Your task to perform on an android device: Open display settings Image 0: 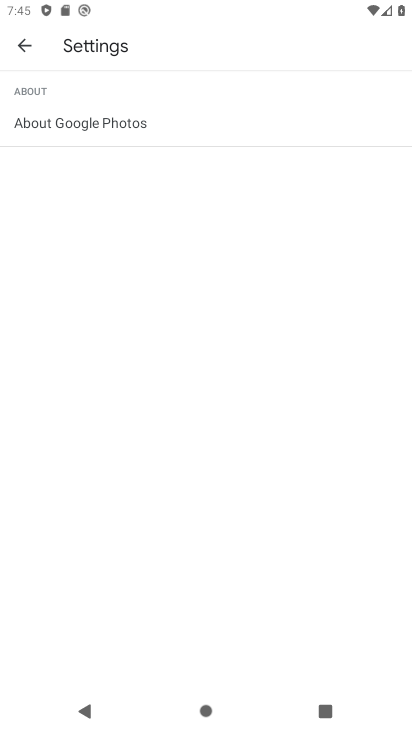
Step 0: press home button
Your task to perform on an android device: Open display settings Image 1: 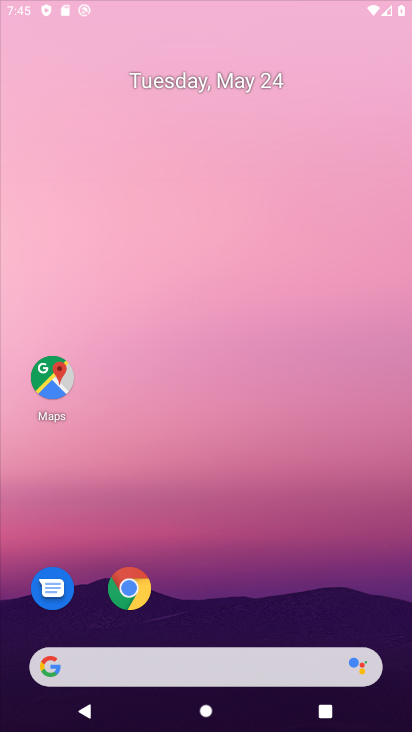
Step 1: drag from (153, 582) to (404, 60)
Your task to perform on an android device: Open display settings Image 2: 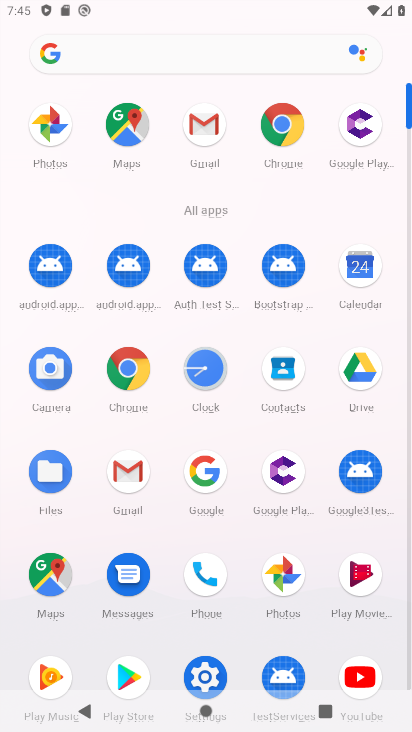
Step 2: click (214, 668)
Your task to perform on an android device: Open display settings Image 3: 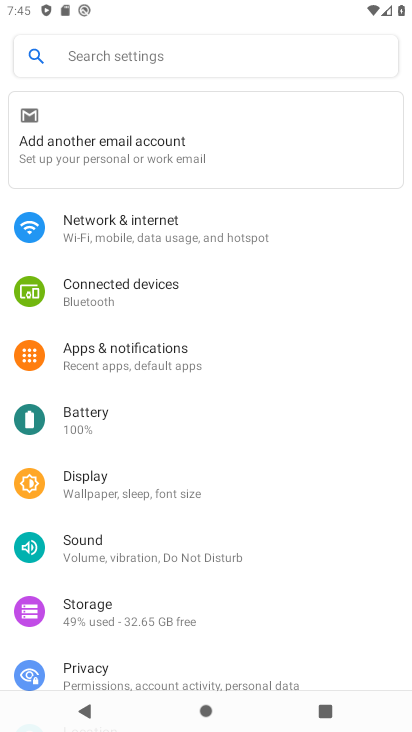
Step 3: click (137, 488)
Your task to perform on an android device: Open display settings Image 4: 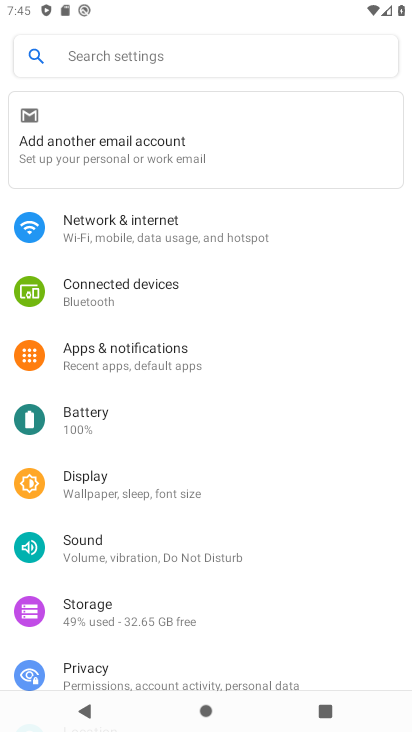
Step 4: click (137, 488)
Your task to perform on an android device: Open display settings Image 5: 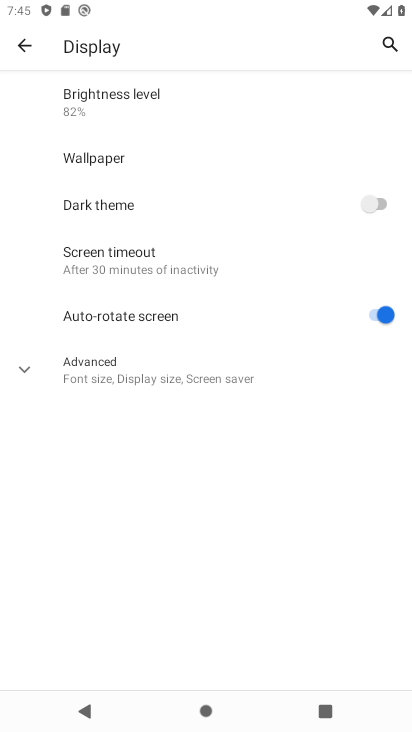
Step 5: click (153, 368)
Your task to perform on an android device: Open display settings Image 6: 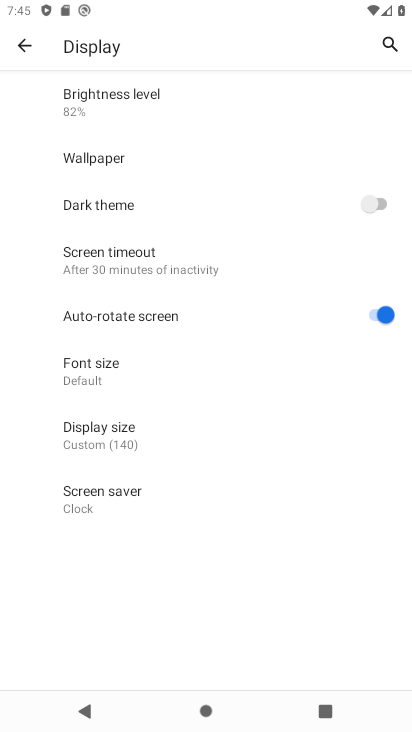
Step 6: task complete